Your task to perform on an android device: turn on bluetooth scan Image 0: 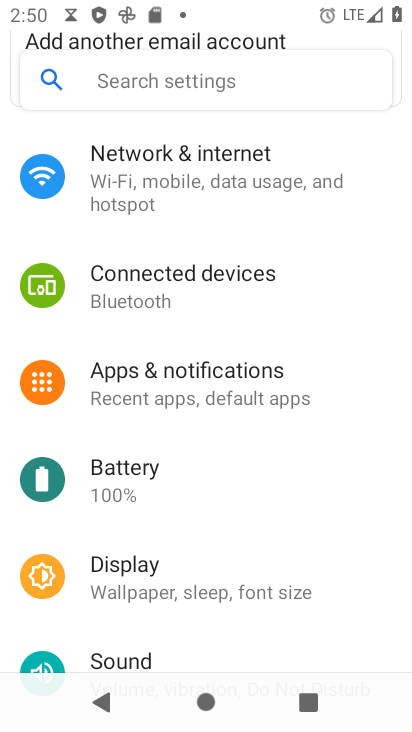
Step 0: press home button
Your task to perform on an android device: turn on bluetooth scan Image 1: 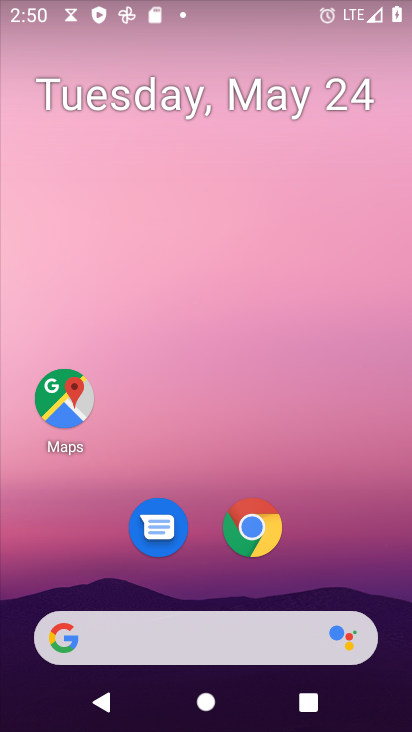
Step 1: drag from (171, 645) to (345, 95)
Your task to perform on an android device: turn on bluetooth scan Image 2: 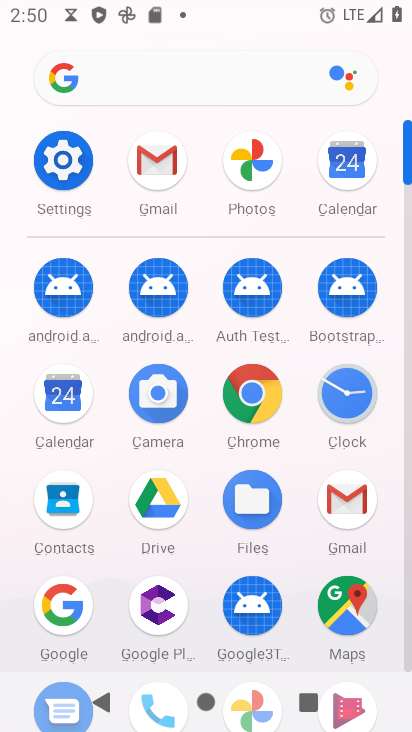
Step 2: click (76, 172)
Your task to perform on an android device: turn on bluetooth scan Image 3: 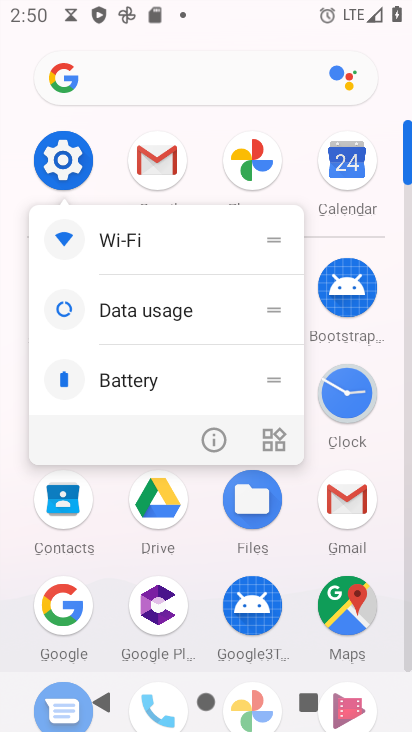
Step 3: click (60, 159)
Your task to perform on an android device: turn on bluetooth scan Image 4: 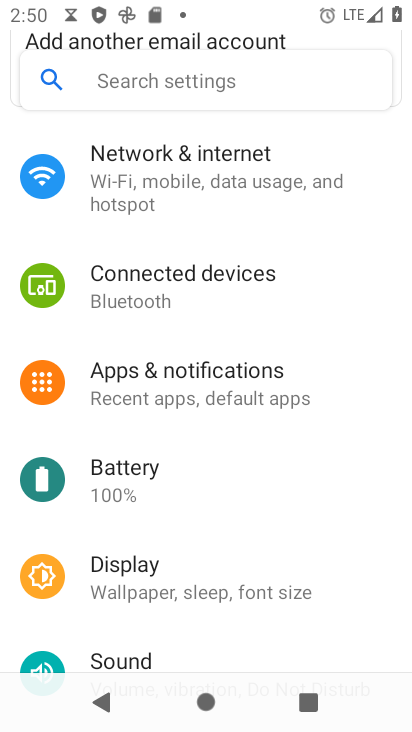
Step 4: drag from (216, 652) to (358, 360)
Your task to perform on an android device: turn on bluetooth scan Image 5: 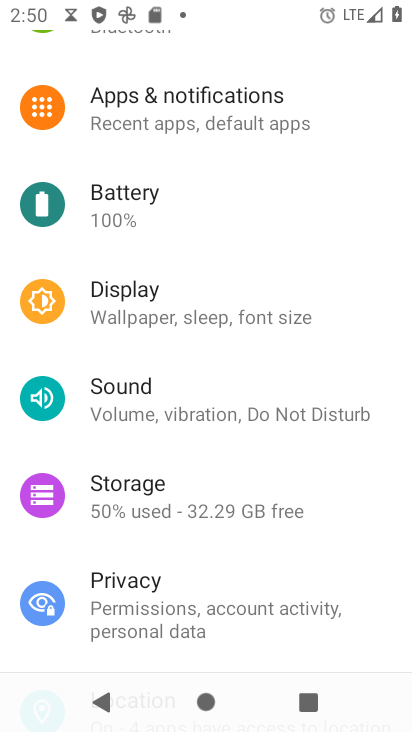
Step 5: drag from (268, 531) to (314, 154)
Your task to perform on an android device: turn on bluetooth scan Image 6: 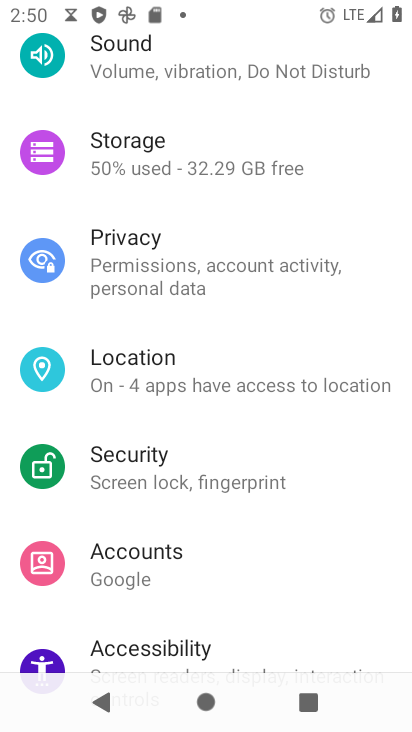
Step 6: click (193, 378)
Your task to perform on an android device: turn on bluetooth scan Image 7: 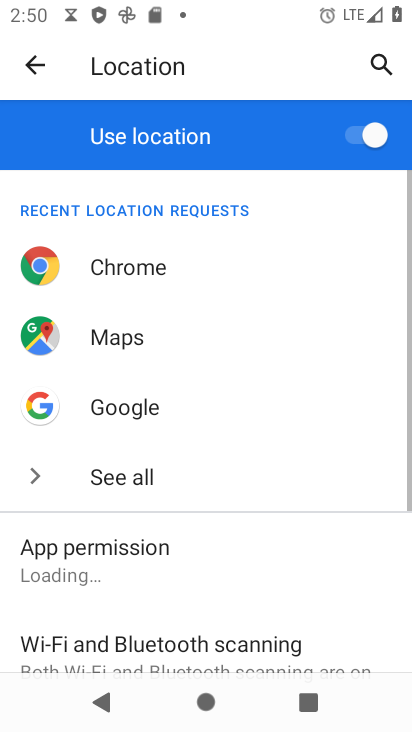
Step 7: drag from (228, 637) to (291, 170)
Your task to perform on an android device: turn on bluetooth scan Image 8: 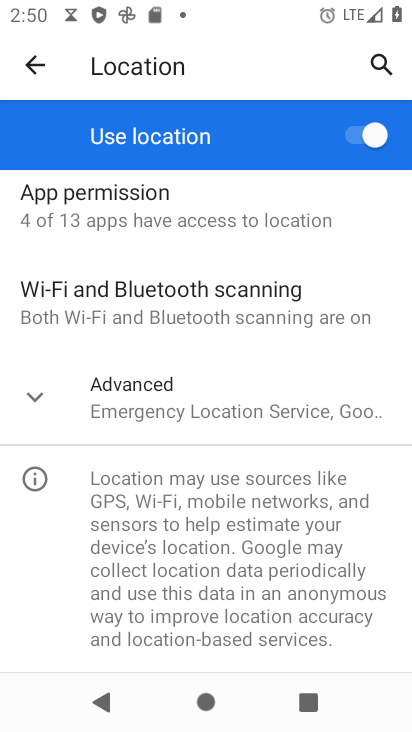
Step 8: click (205, 289)
Your task to perform on an android device: turn on bluetooth scan Image 9: 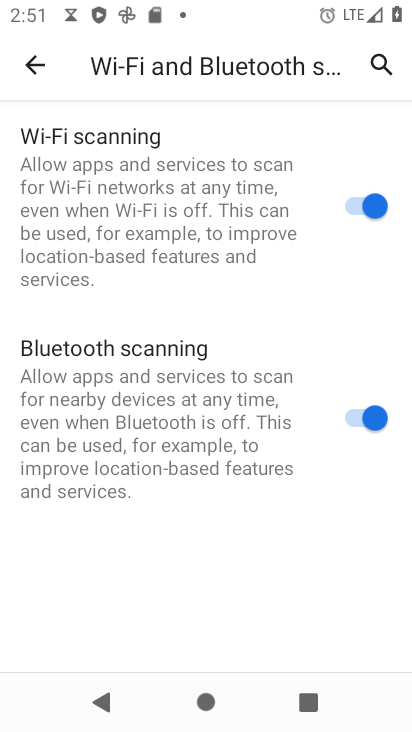
Step 9: task complete